Your task to perform on an android device: Go to internet settings Image 0: 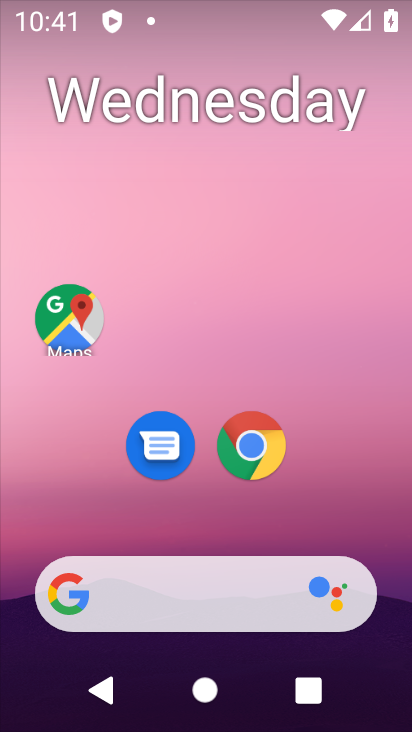
Step 0: drag from (350, 510) to (353, 74)
Your task to perform on an android device: Go to internet settings Image 1: 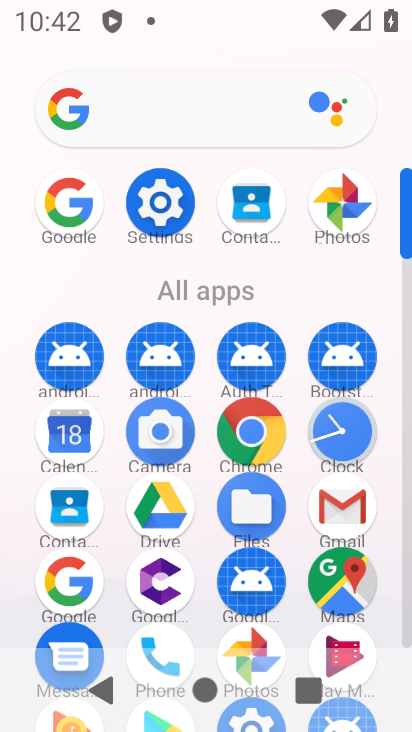
Step 1: click (168, 212)
Your task to perform on an android device: Go to internet settings Image 2: 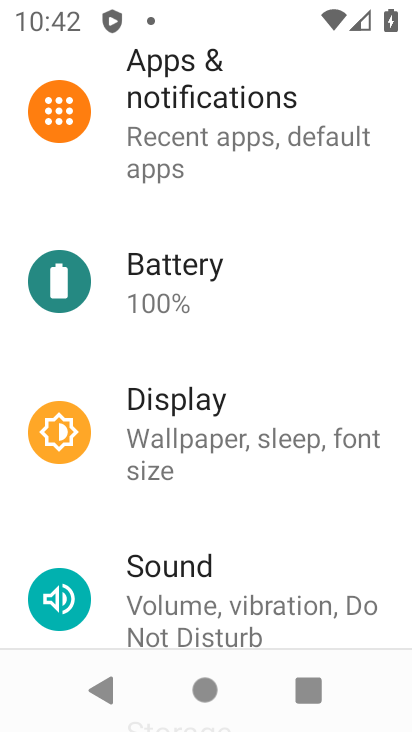
Step 2: drag from (304, 121) to (307, 523)
Your task to perform on an android device: Go to internet settings Image 3: 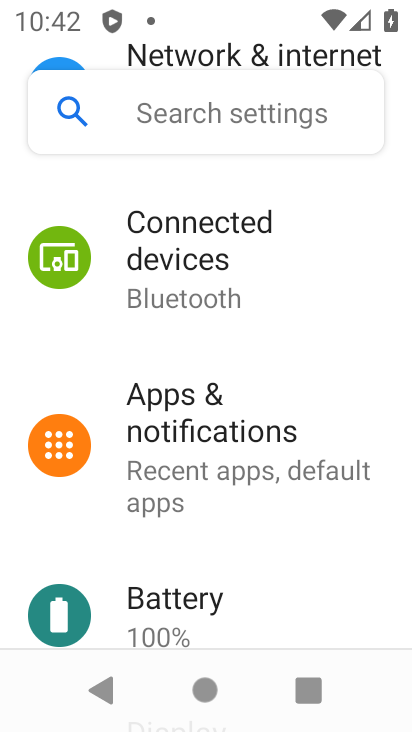
Step 3: drag from (335, 239) to (318, 543)
Your task to perform on an android device: Go to internet settings Image 4: 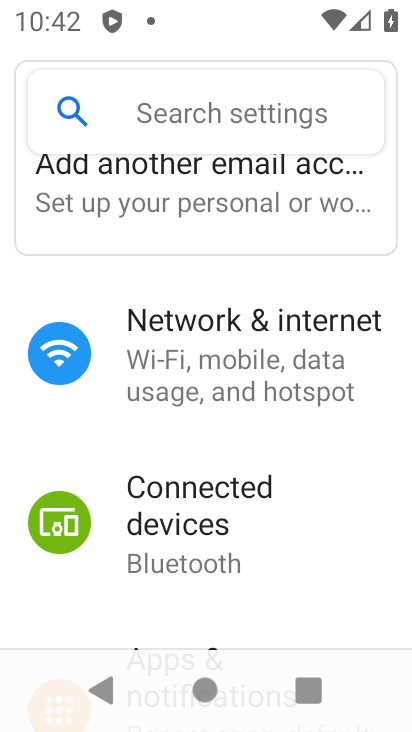
Step 4: click (274, 373)
Your task to perform on an android device: Go to internet settings Image 5: 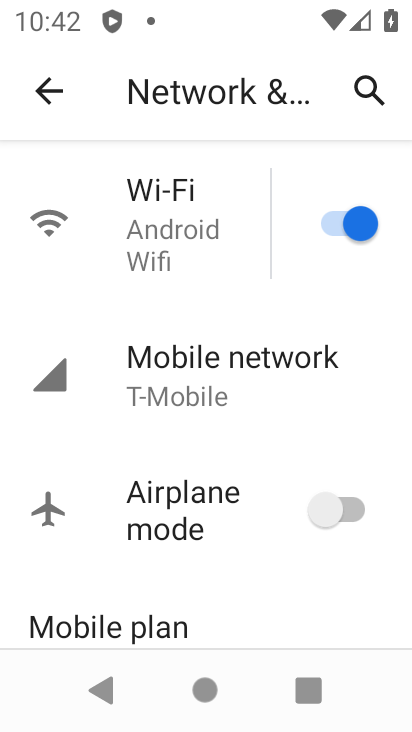
Step 5: task complete